Your task to perform on an android device: toggle wifi Image 0: 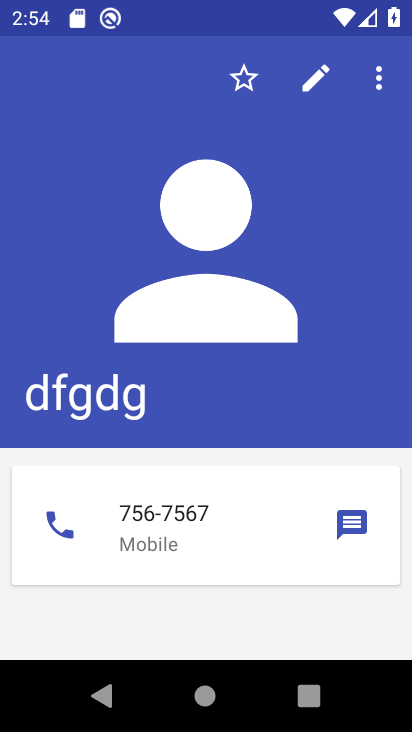
Step 0: press home button
Your task to perform on an android device: toggle wifi Image 1: 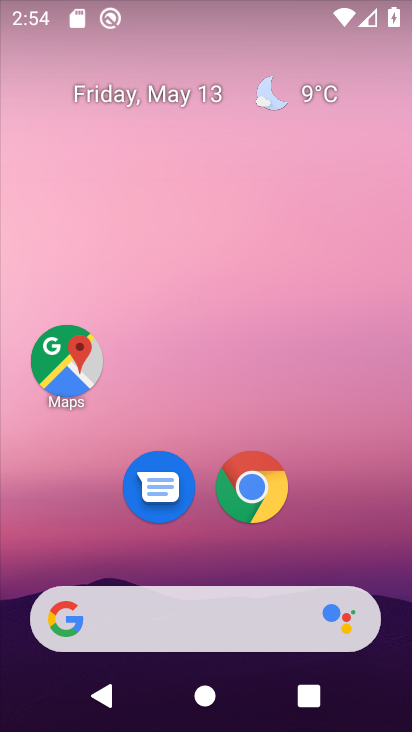
Step 1: drag from (247, 636) to (278, 172)
Your task to perform on an android device: toggle wifi Image 2: 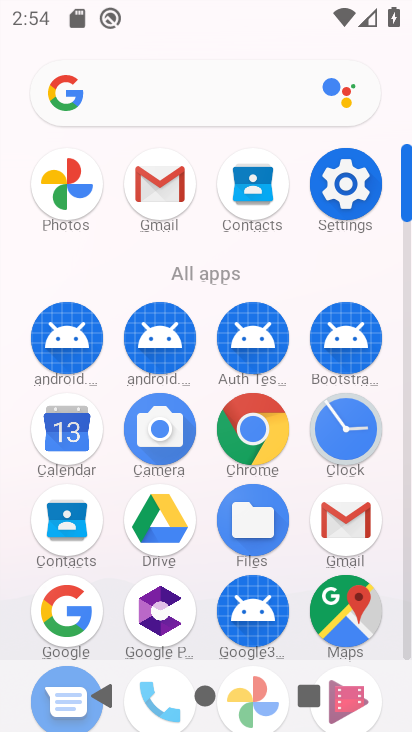
Step 2: click (331, 192)
Your task to perform on an android device: toggle wifi Image 3: 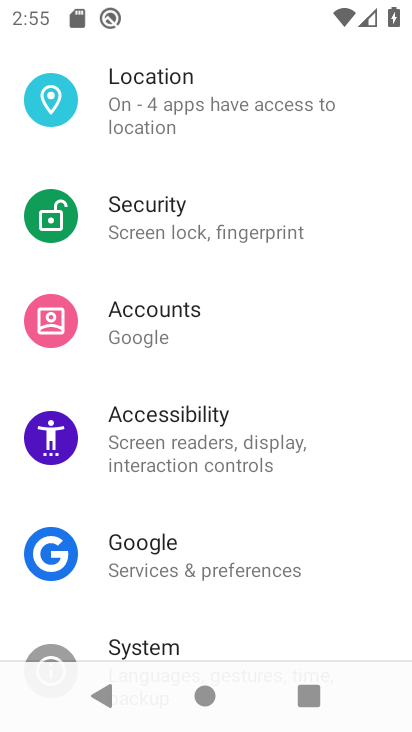
Step 3: drag from (238, 128) to (200, 676)
Your task to perform on an android device: toggle wifi Image 4: 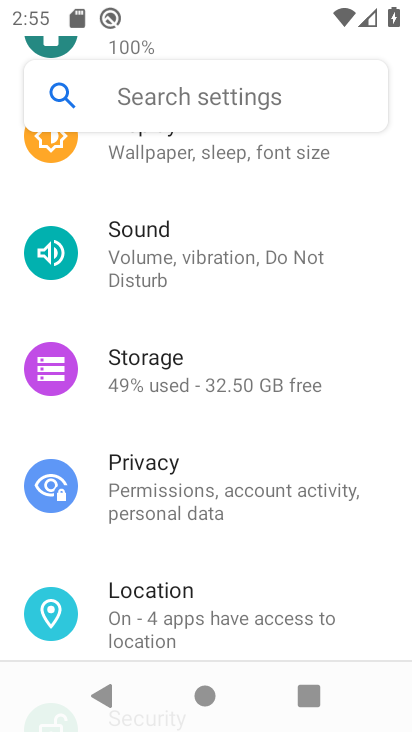
Step 4: drag from (224, 203) to (255, 634)
Your task to perform on an android device: toggle wifi Image 5: 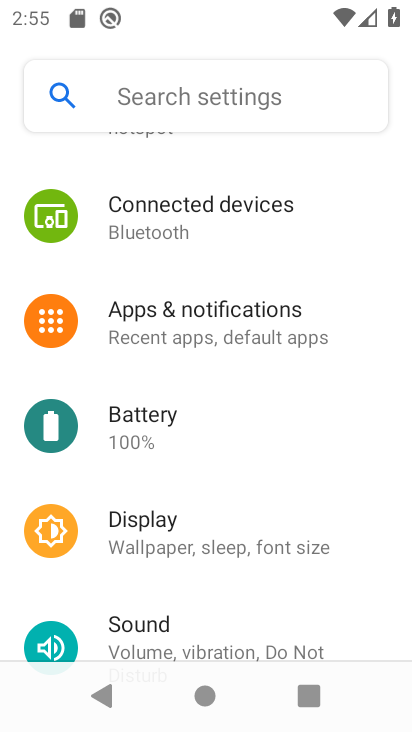
Step 5: drag from (220, 225) to (239, 590)
Your task to perform on an android device: toggle wifi Image 6: 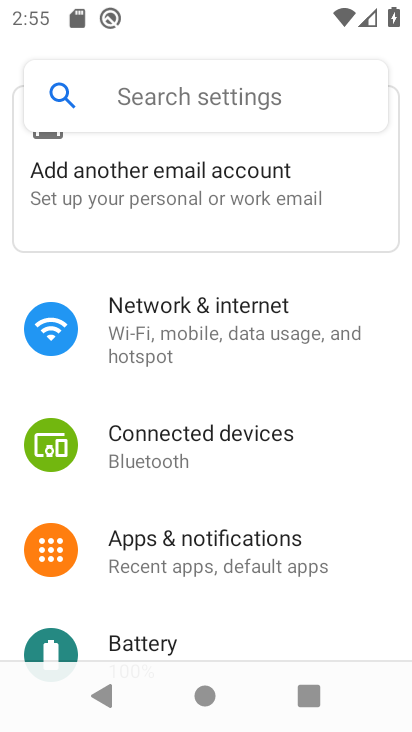
Step 6: click (228, 332)
Your task to perform on an android device: toggle wifi Image 7: 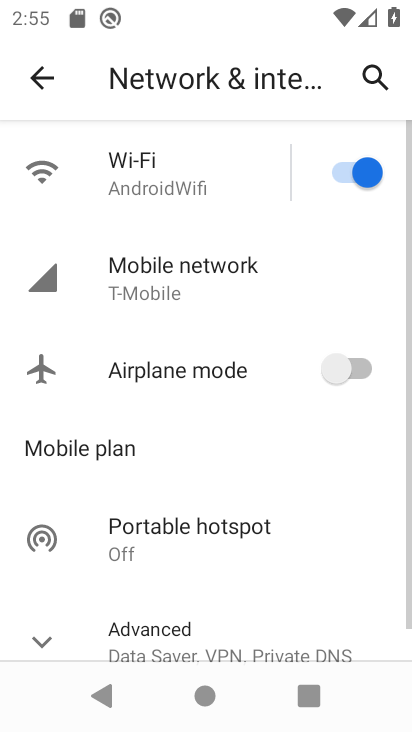
Step 7: click (365, 188)
Your task to perform on an android device: toggle wifi Image 8: 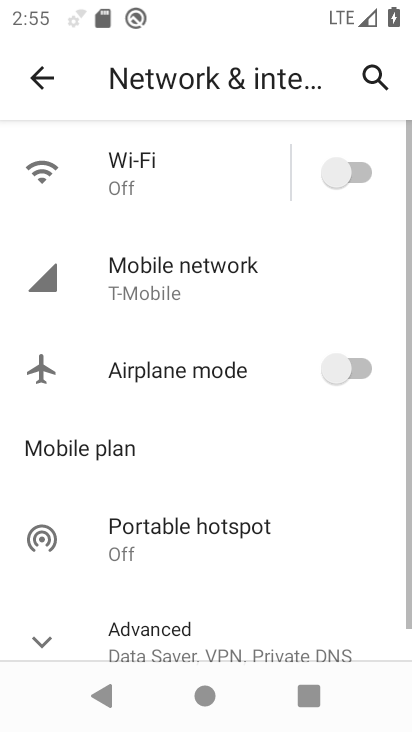
Step 8: task complete